Your task to perform on an android device: Go to accessibility settings Image 0: 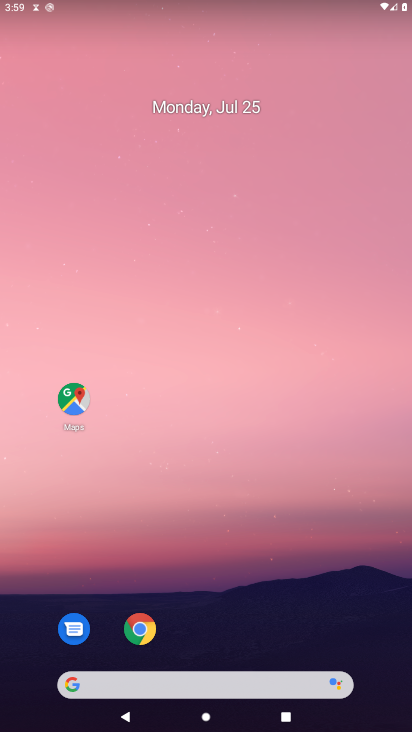
Step 0: click (161, 329)
Your task to perform on an android device: Go to accessibility settings Image 1: 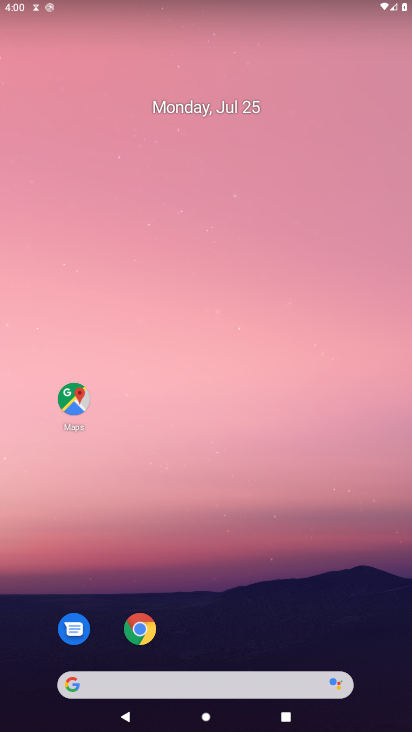
Step 1: drag from (27, 677) to (183, 8)
Your task to perform on an android device: Go to accessibility settings Image 2: 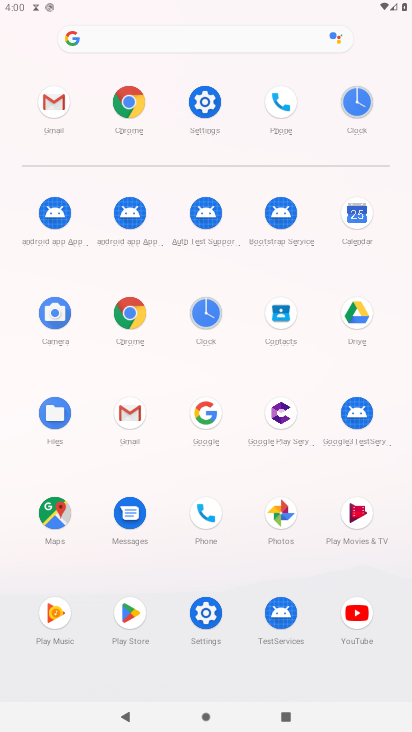
Step 2: click (190, 618)
Your task to perform on an android device: Go to accessibility settings Image 3: 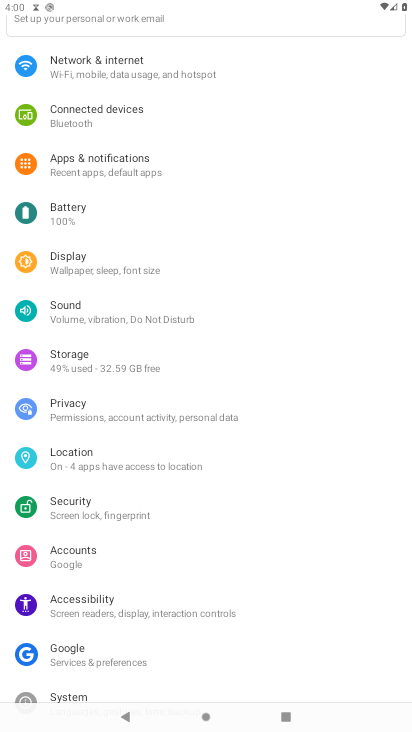
Step 3: click (67, 607)
Your task to perform on an android device: Go to accessibility settings Image 4: 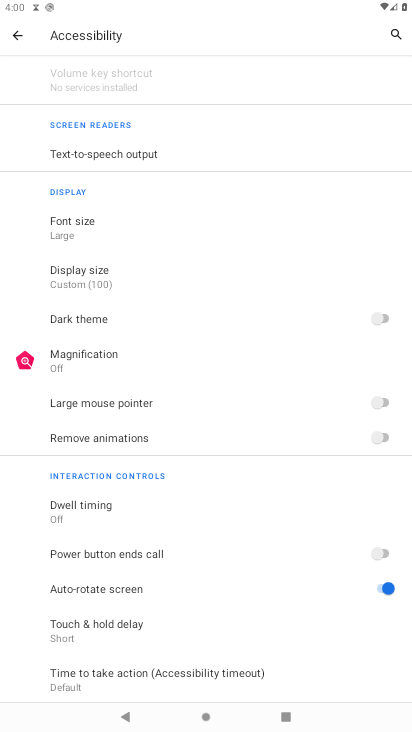
Step 4: task complete